Your task to perform on an android device: Open calendar and show me the first week of next month Image 0: 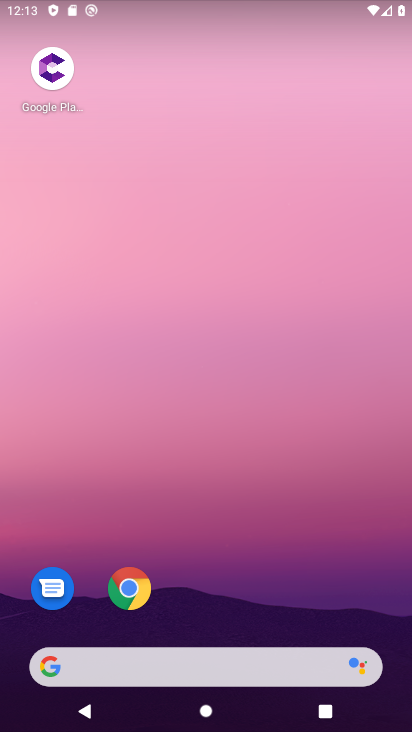
Step 0: press home button
Your task to perform on an android device: Open calendar and show me the first week of next month Image 1: 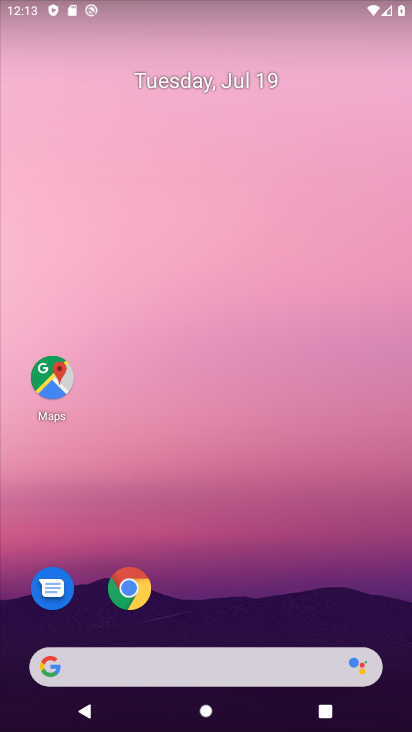
Step 1: drag from (235, 630) to (215, 201)
Your task to perform on an android device: Open calendar and show me the first week of next month Image 2: 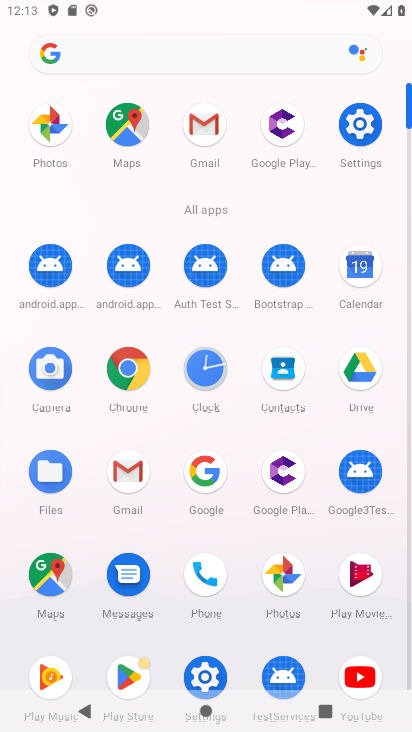
Step 2: click (380, 272)
Your task to perform on an android device: Open calendar and show me the first week of next month Image 3: 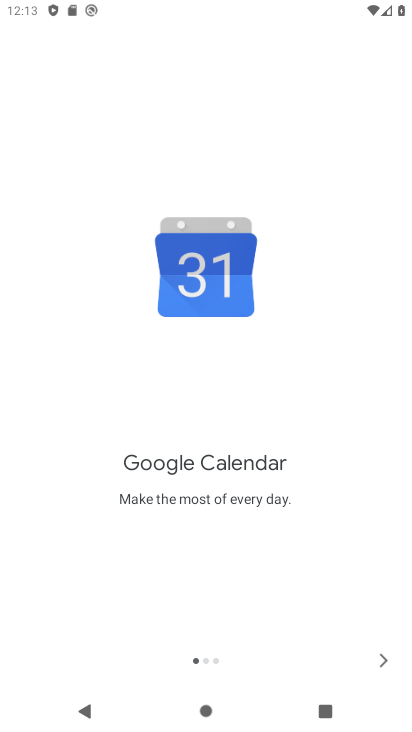
Step 3: click (375, 669)
Your task to perform on an android device: Open calendar and show me the first week of next month Image 4: 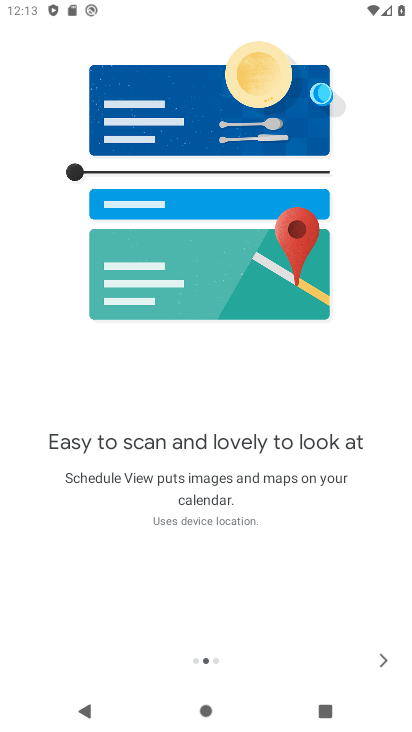
Step 4: click (375, 669)
Your task to perform on an android device: Open calendar and show me the first week of next month Image 5: 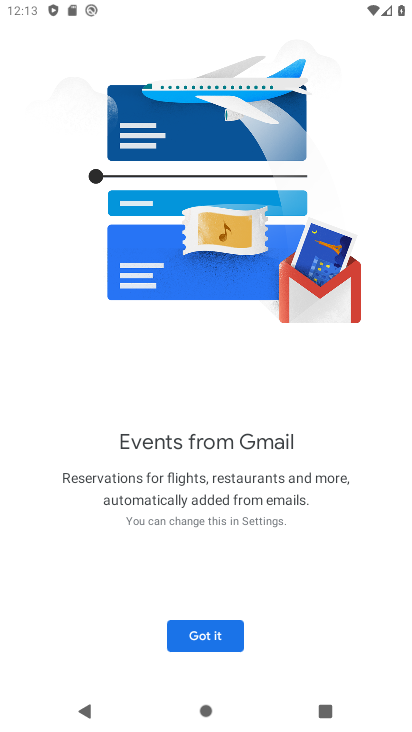
Step 5: click (230, 630)
Your task to perform on an android device: Open calendar and show me the first week of next month Image 6: 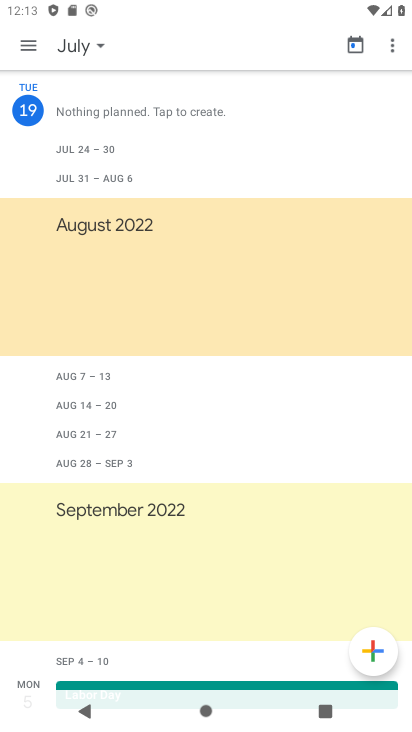
Step 6: click (15, 58)
Your task to perform on an android device: Open calendar and show me the first week of next month Image 7: 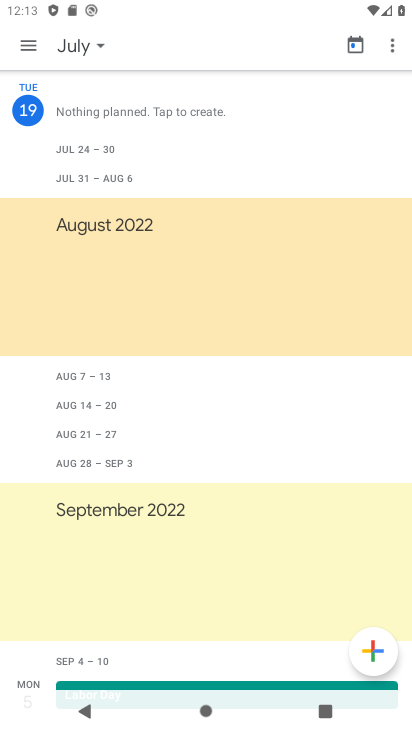
Step 7: click (33, 42)
Your task to perform on an android device: Open calendar and show me the first week of next month Image 8: 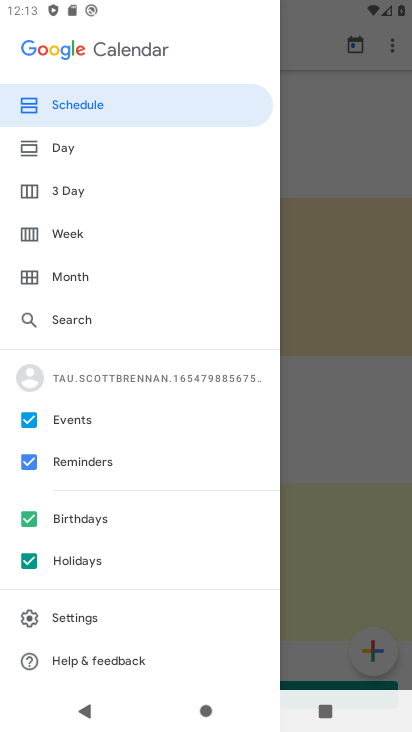
Step 8: click (68, 278)
Your task to perform on an android device: Open calendar and show me the first week of next month Image 9: 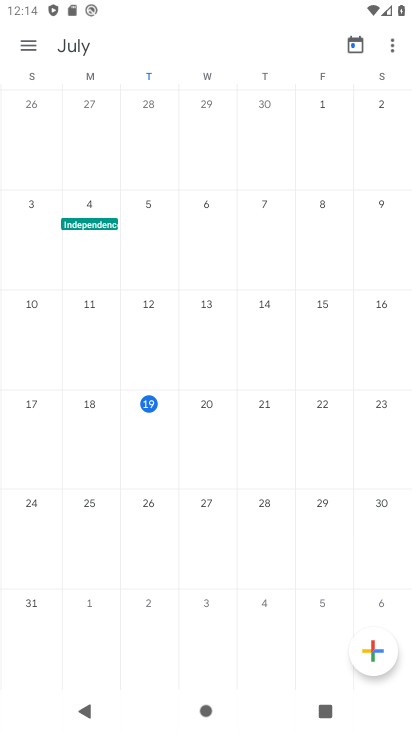
Step 9: drag from (304, 256) to (1, 317)
Your task to perform on an android device: Open calendar and show me the first week of next month Image 10: 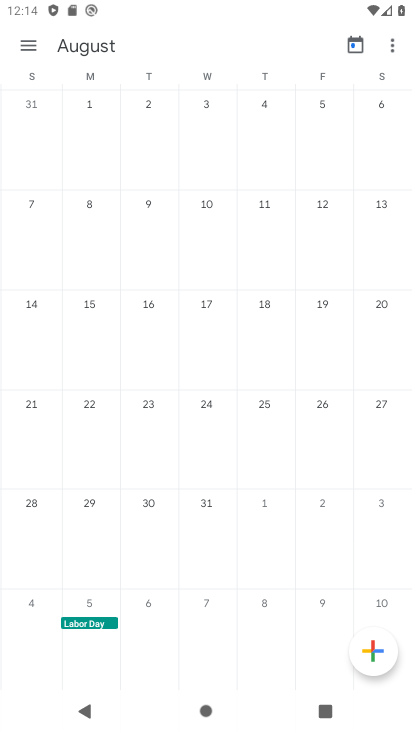
Step 10: click (92, 113)
Your task to perform on an android device: Open calendar and show me the first week of next month Image 11: 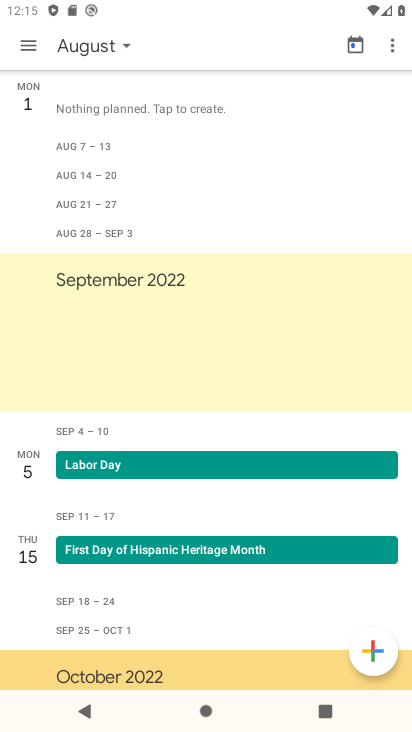
Step 11: task complete